Your task to perform on an android device: Search for pizza restaurants on Maps Image 0: 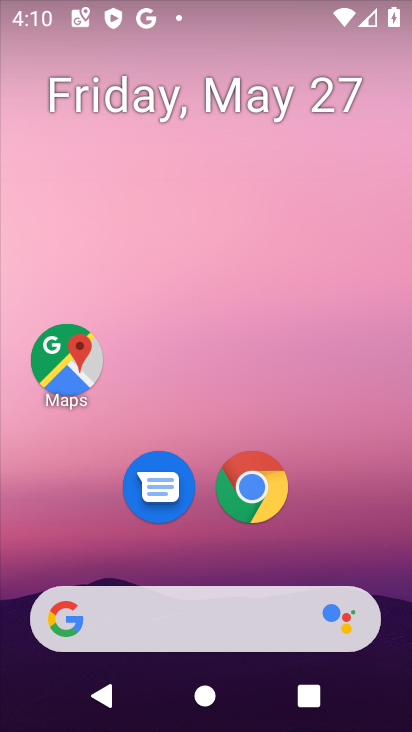
Step 0: click (74, 352)
Your task to perform on an android device: Search for pizza restaurants on Maps Image 1: 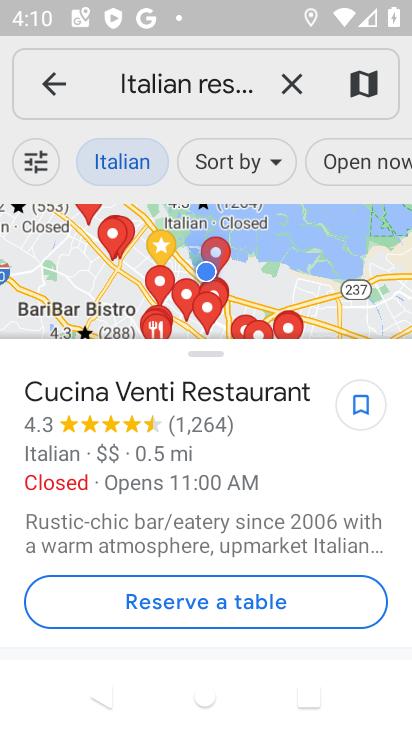
Step 1: click (145, 92)
Your task to perform on an android device: Search for pizza restaurants on Maps Image 2: 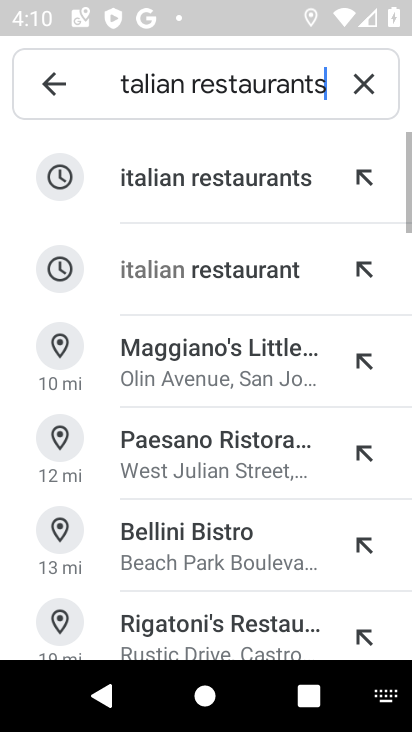
Step 2: click (360, 85)
Your task to perform on an android device: Search for pizza restaurants on Maps Image 3: 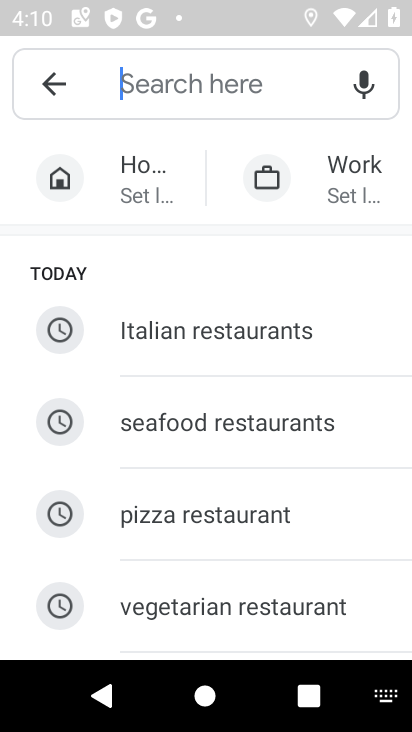
Step 3: click (238, 519)
Your task to perform on an android device: Search for pizza restaurants on Maps Image 4: 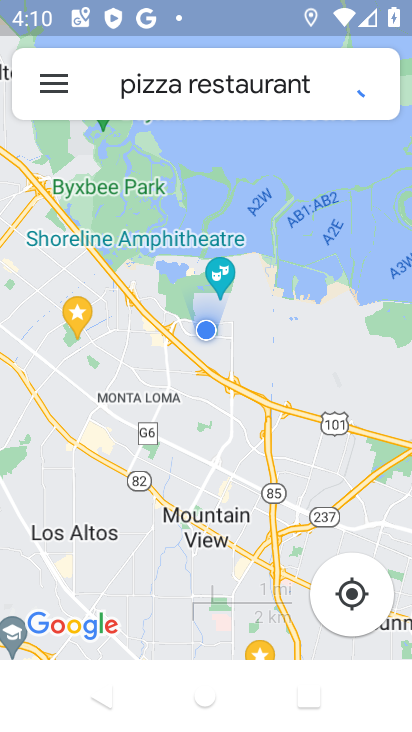
Step 4: type "s"
Your task to perform on an android device: Search for pizza restaurants on Maps Image 5: 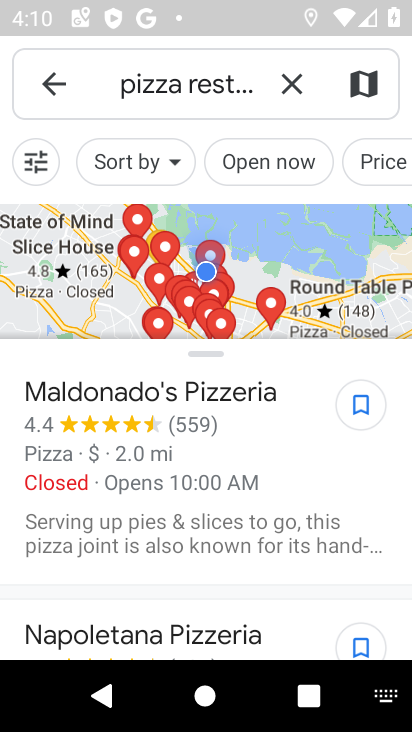
Step 5: task complete